Your task to perform on an android device: see sites visited before in the chrome app Image 0: 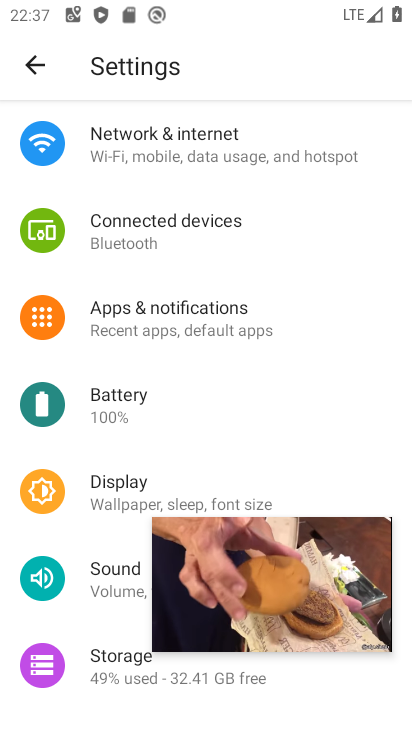
Step 0: click (369, 520)
Your task to perform on an android device: see sites visited before in the chrome app Image 1: 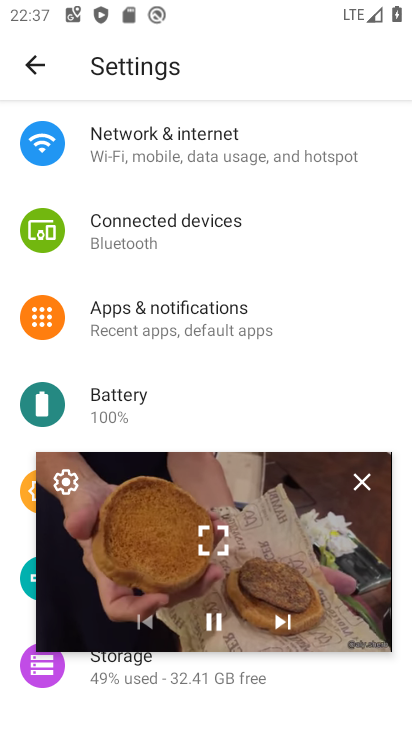
Step 1: click (356, 482)
Your task to perform on an android device: see sites visited before in the chrome app Image 2: 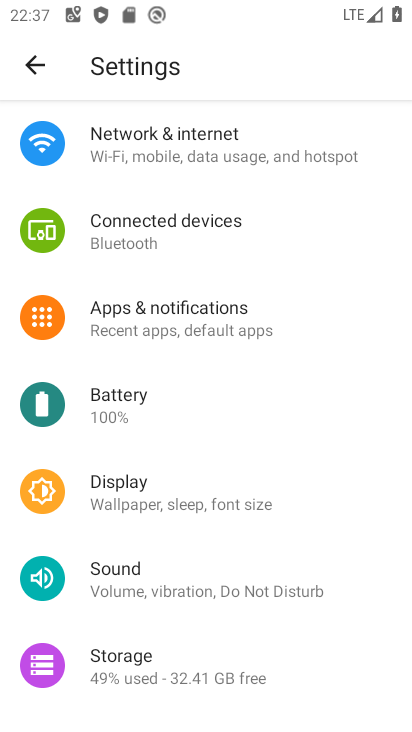
Step 2: press home button
Your task to perform on an android device: see sites visited before in the chrome app Image 3: 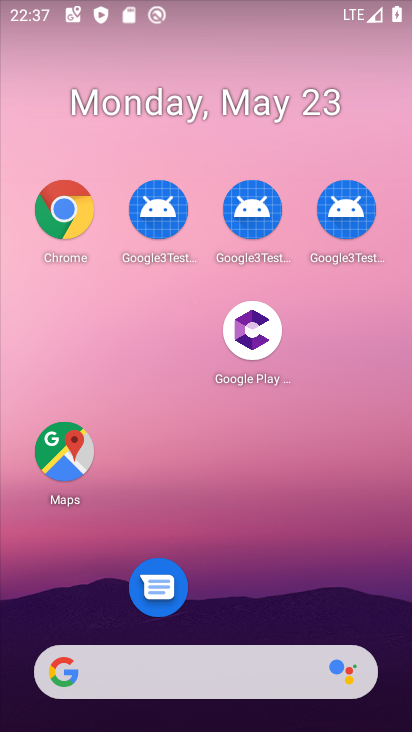
Step 3: click (64, 198)
Your task to perform on an android device: see sites visited before in the chrome app Image 4: 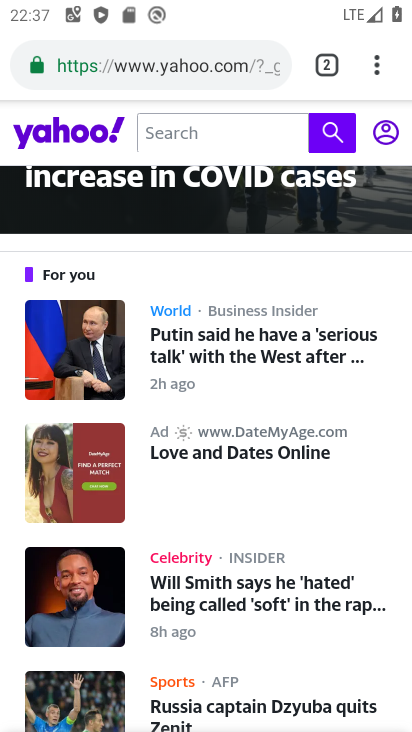
Step 4: click (378, 71)
Your task to perform on an android device: see sites visited before in the chrome app Image 5: 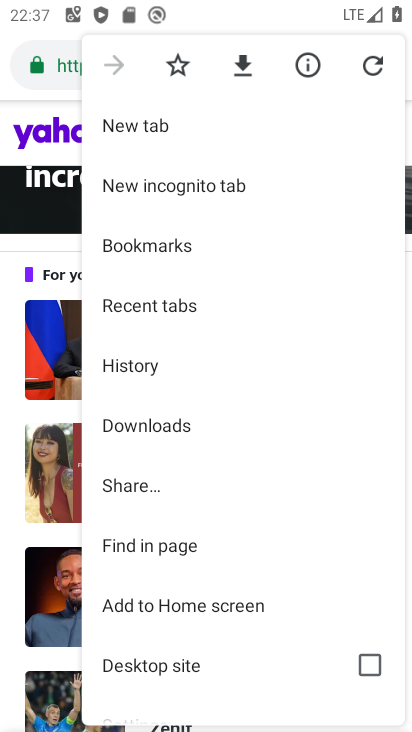
Step 5: drag from (234, 479) to (224, 214)
Your task to perform on an android device: see sites visited before in the chrome app Image 6: 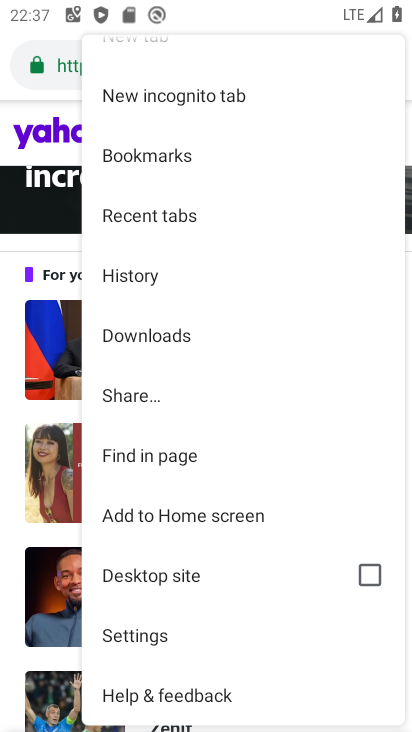
Step 6: click (187, 634)
Your task to perform on an android device: see sites visited before in the chrome app Image 7: 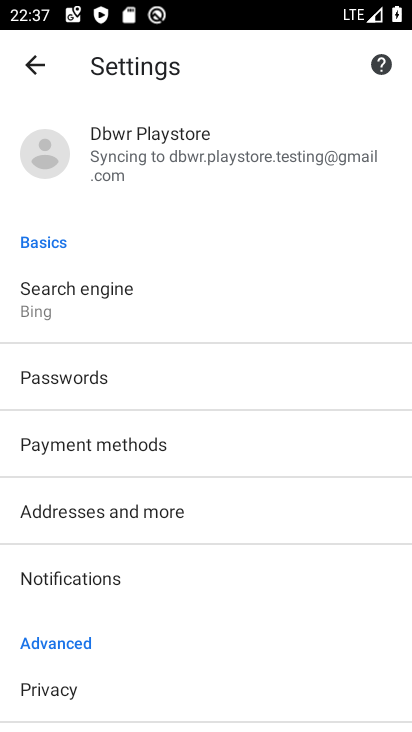
Step 7: drag from (152, 645) to (148, 297)
Your task to perform on an android device: see sites visited before in the chrome app Image 8: 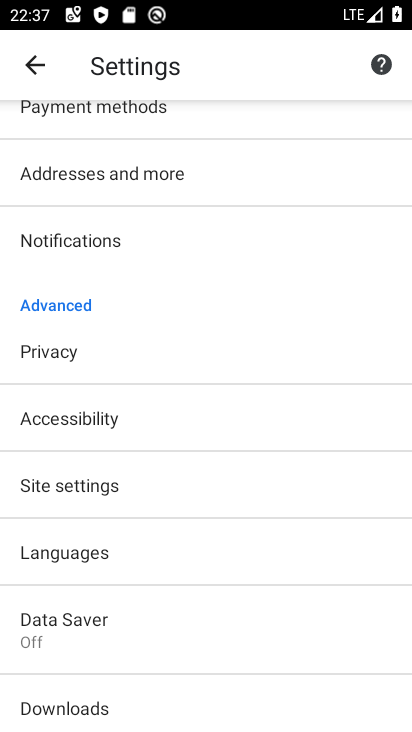
Step 8: click (144, 356)
Your task to perform on an android device: see sites visited before in the chrome app Image 9: 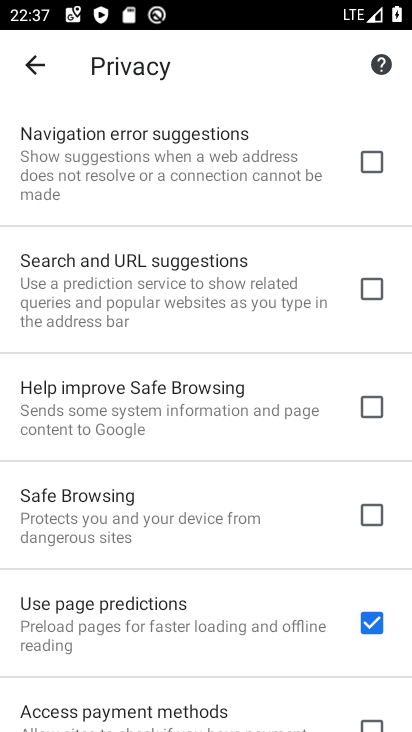
Step 9: drag from (162, 457) to (154, 20)
Your task to perform on an android device: see sites visited before in the chrome app Image 10: 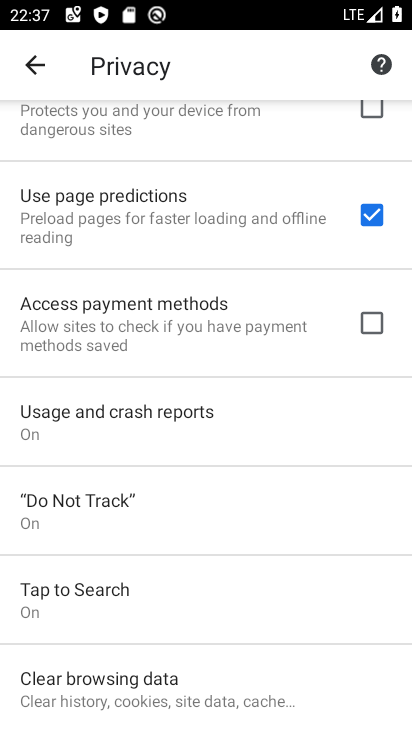
Step 10: drag from (198, 508) to (189, 182)
Your task to perform on an android device: see sites visited before in the chrome app Image 11: 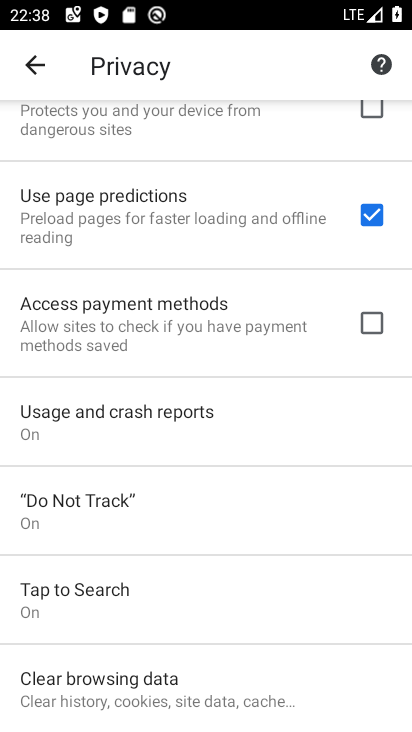
Step 11: press back button
Your task to perform on an android device: see sites visited before in the chrome app Image 12: 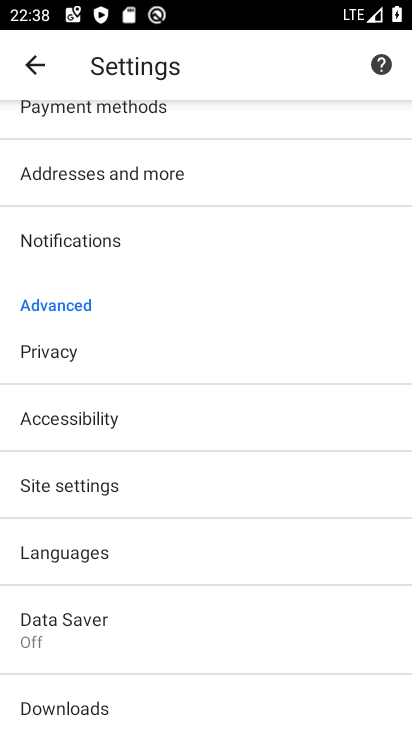
Step 12: click (170, 433)
Your task to perform on an android device: see sites visited before in the chrome app Image 13: 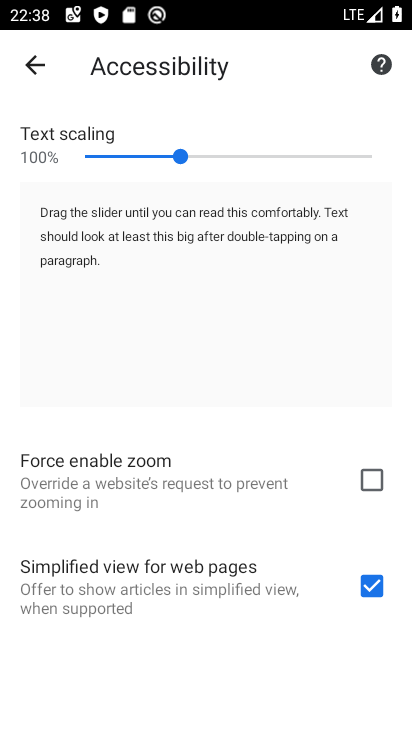
Step 13: press back button
Your task to perform on an android device: see sites visited before in the chrome app Image 14: 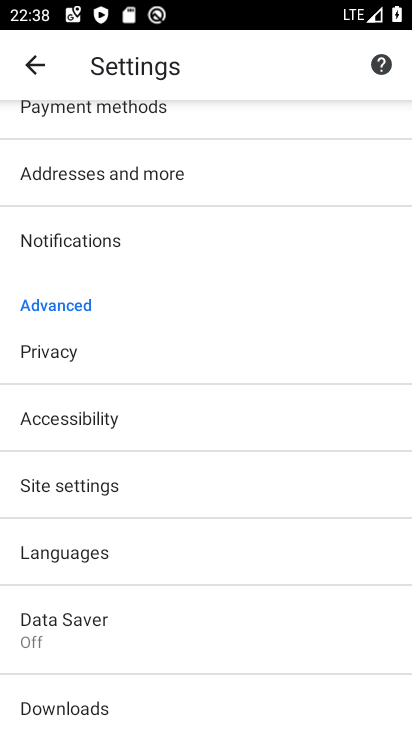
Step 14: click (178, 463)
Your task to perform on an android device: see sites visited before in the chrome app Image 15: 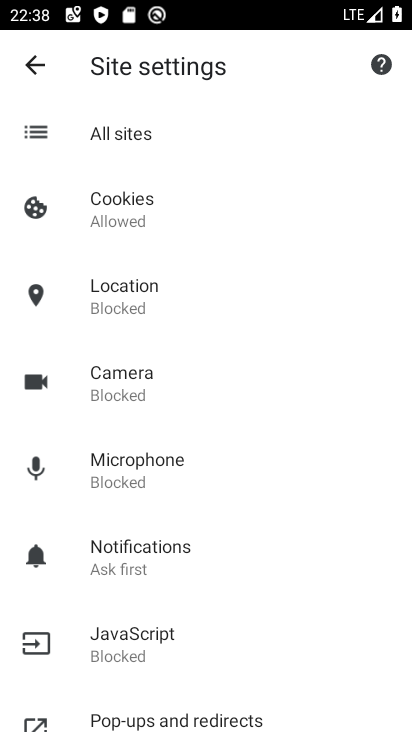
Step 15: drag from (301, 581) to (231, 250)
Your task to perform on an android device: see sites visited before in the chrome app Image 16: 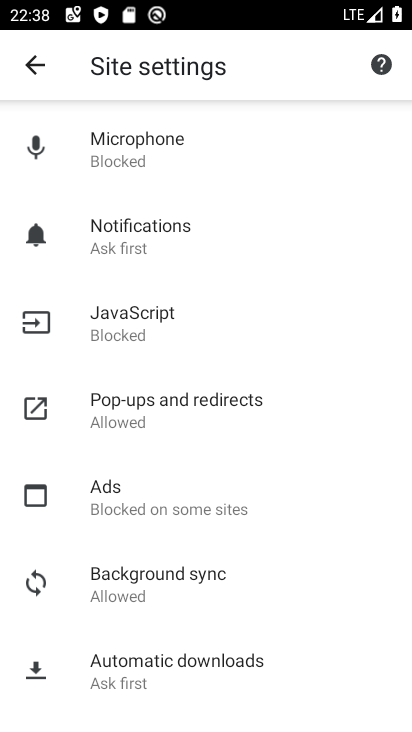
Step 16: drag from (212, 162) to (196, 648)
Your task to perform on an android device: see sites visited before in the chrome app Image 17: 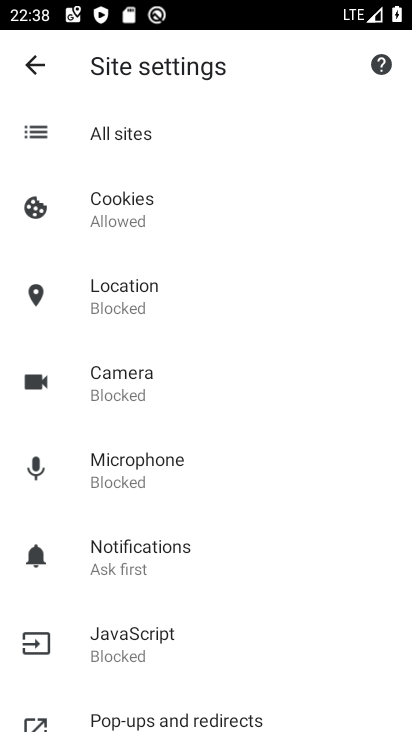
Step 17: click (101, 126)
Your task to perform on an android device: see sites visited before in the chrome app Image 18: 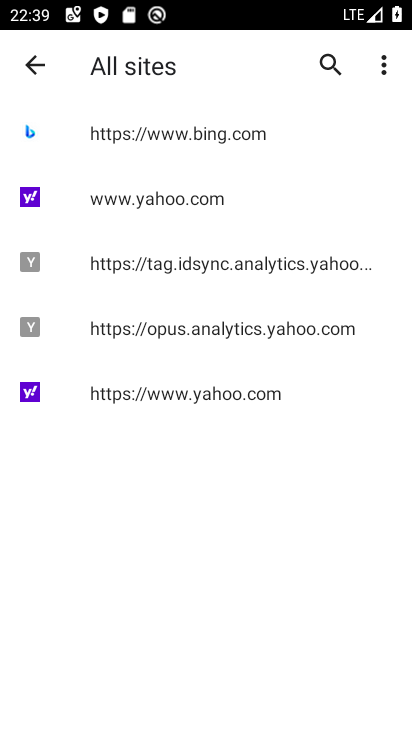
Step 18: task complete